Your task to perform on an android device: see tabs open on other devices in the chrome app Image 0: 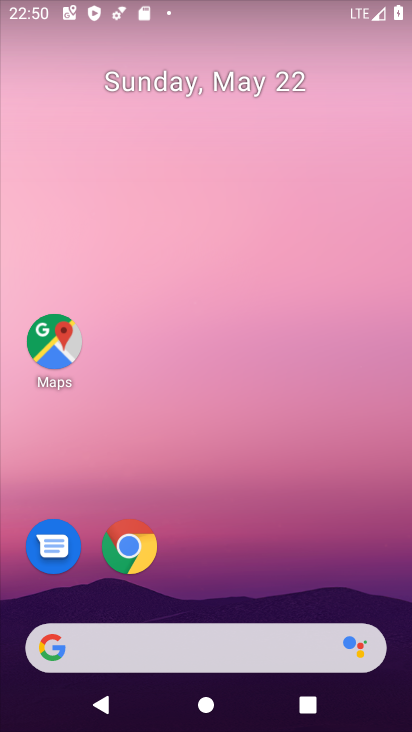
Step 0: drag from (234, 575) to (301, 83)
Your task to perform on an android device: see tabs open on other devices in the chrome app Image 1: 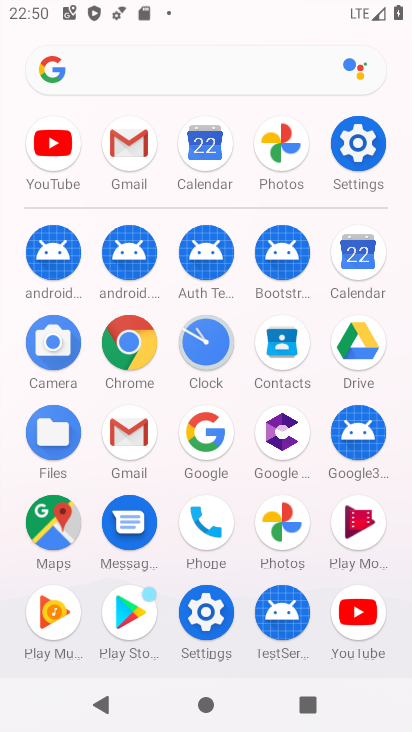
Step 1: click (139, 363)
Your task to perform on an android device: see tabs open on other devices in the chrome app Image 2: 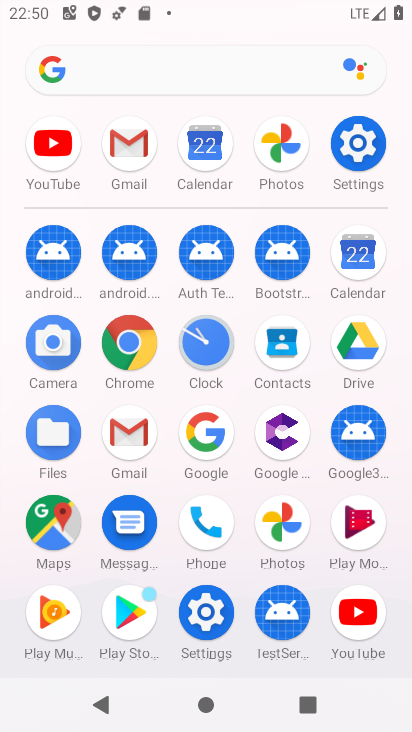
Step 2: click (139, 363)
Your task to perform on an android device: see tabs open on other devices in the chrome app Image 3: 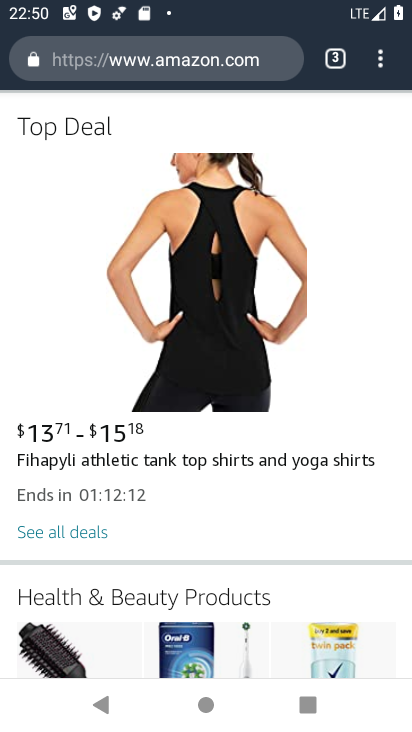
Step 3: click (382, 53)
Your task to perform on an android device: see tabs open on other devices in the chrome app Image 4: 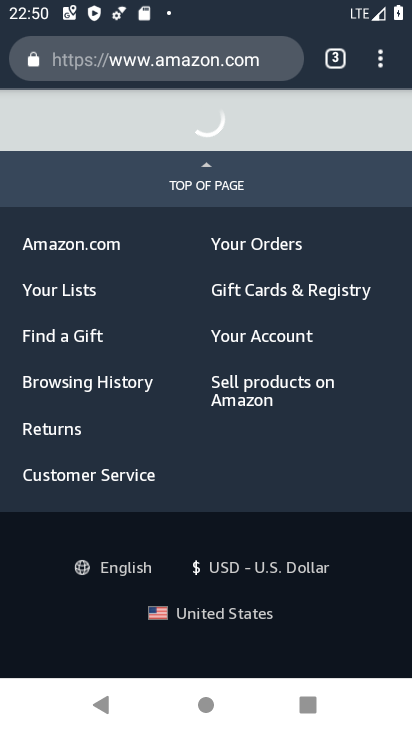
Step 4: click (380, 53)
Your task to perform on an android device: see tabs open on other devices in the chrome app Image 5: 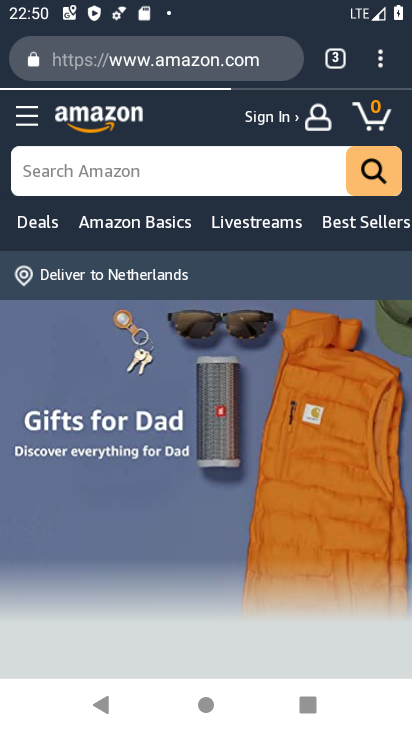
Step 5: click (388, 61)
Your task to perform on an android device: see tabs open on other devices in the chrome app Image 6: 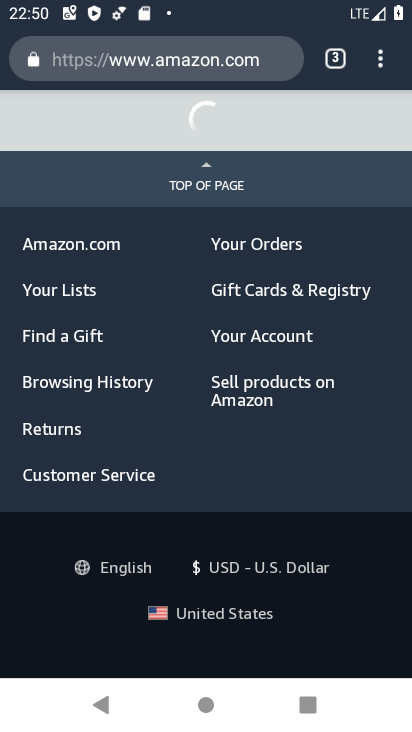
Step 6: click (377, 57)
Your task to perform on an android device: see tabs open on other devices in the chrome app Image 7: 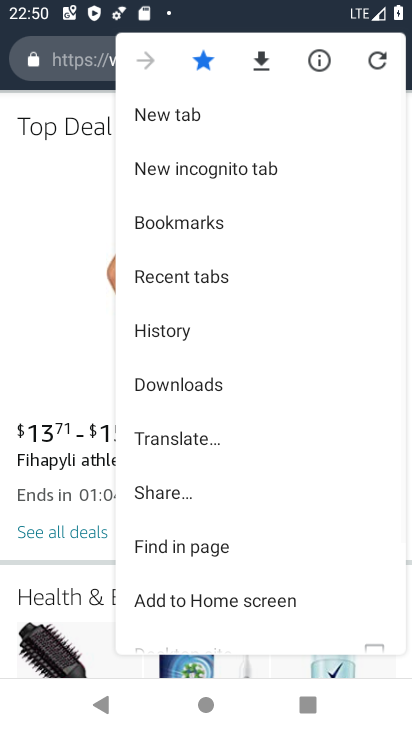
Step 7: drag from (261, 550) to (299, 182)
Your task to perform on an android device: see tabs open on other devices in the chrome app Image 8: 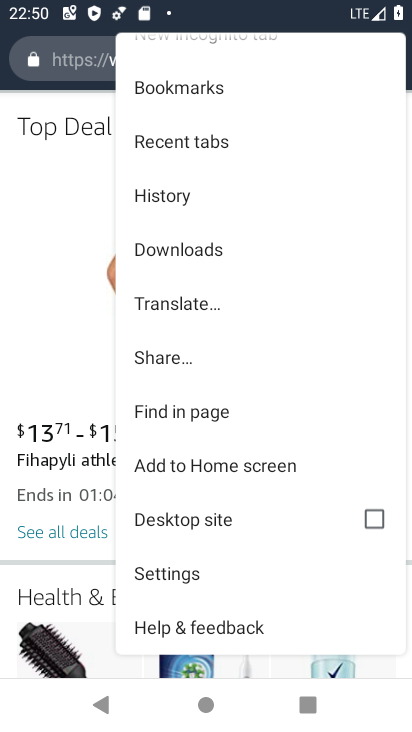
Step 8: drag from (191, 357) to (249, 646)
Your task to perform on an android device: see tabs open on other devices in the chrome app Image 9: 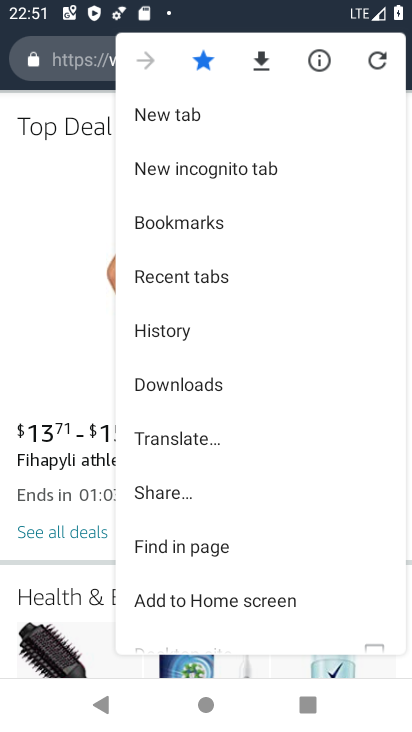
Step 9: click (188, 279)
Your task to perform on an android device: see tabs open on other devices in the chrome app Image 10: 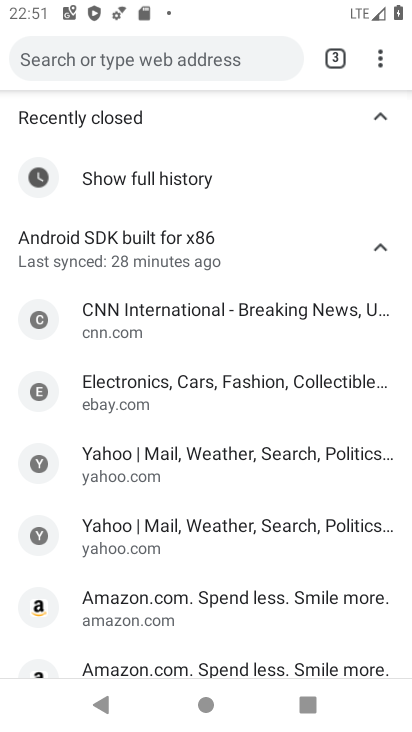
Step 10: task complete